Your task to perform on an android device: Toggle the flashlight Image 0: 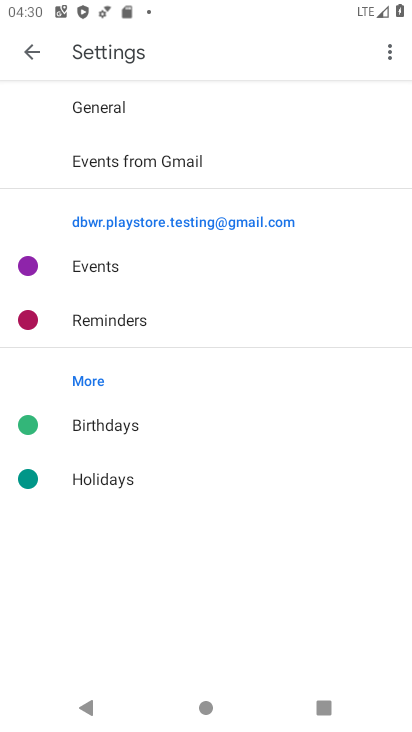
Step 0: press home button
Your task to perform on an android device: Toggle the flashlight Image 1: 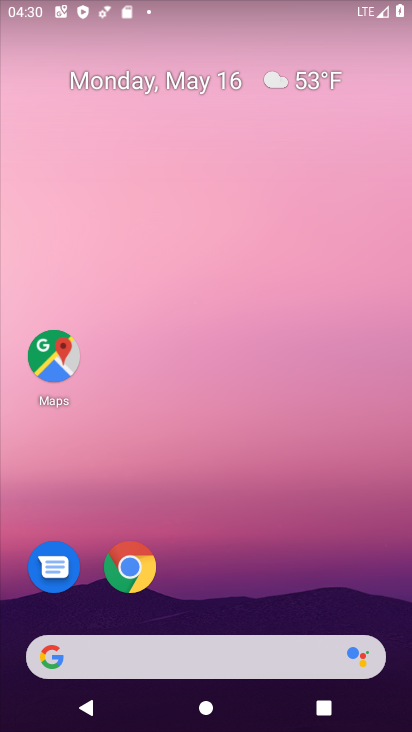
Step 1: task complete